Your task to perform on an android device: Show me popular games on the Play Store Image 0: 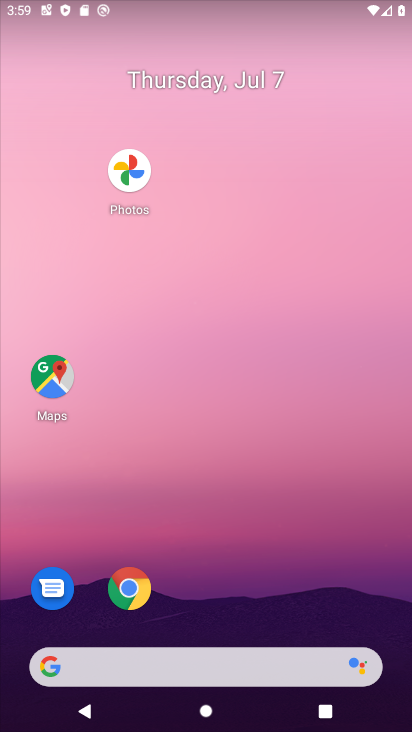
Step 0: drag from (315, 688) to (117, 12)
Your task to perform on an android device: Show me popular games on the Play Store Image 1: 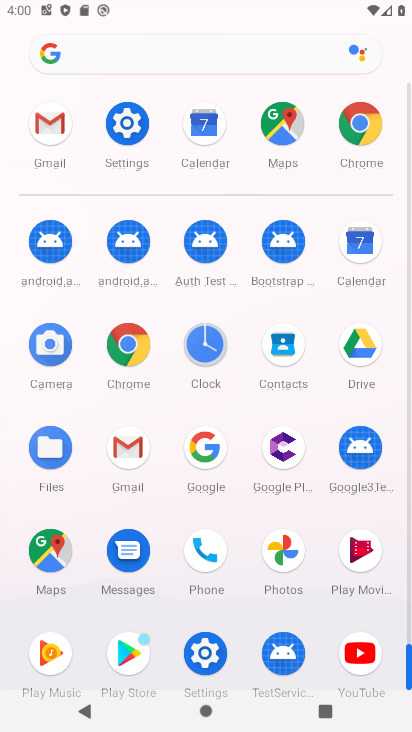
Step 1: click (130, 645)
Your task to perform on an android device: Show me popular games on the Play Store Image 2: 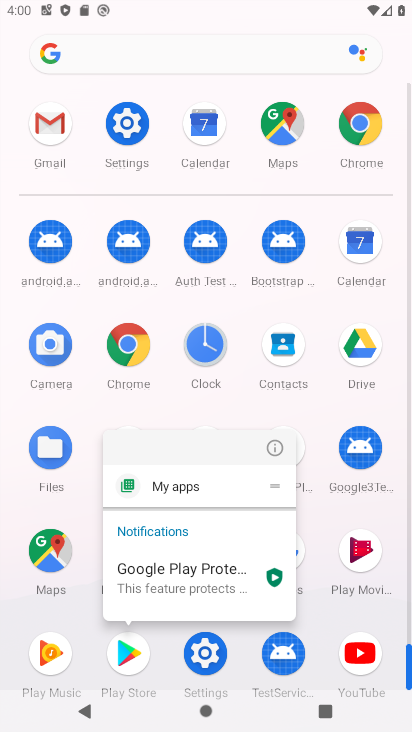
Step 2: click (127, 649)
Your task to perform on an android device: Show me popular games on the Play Store Image 3: 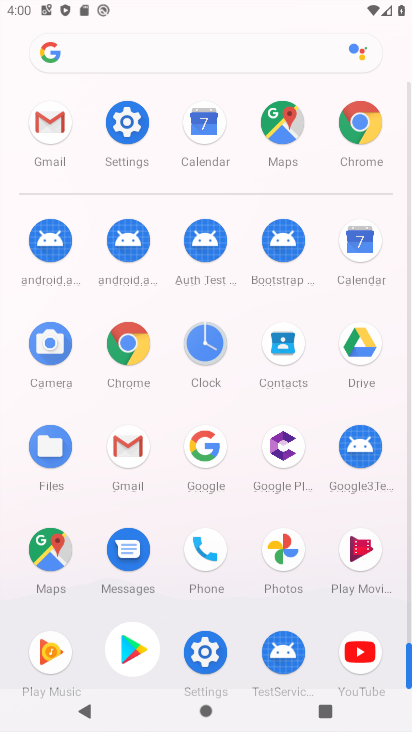
Step 3: click (129, 650)
Your task to perform on an android device: Show me popular games on the Play Store Image 4: 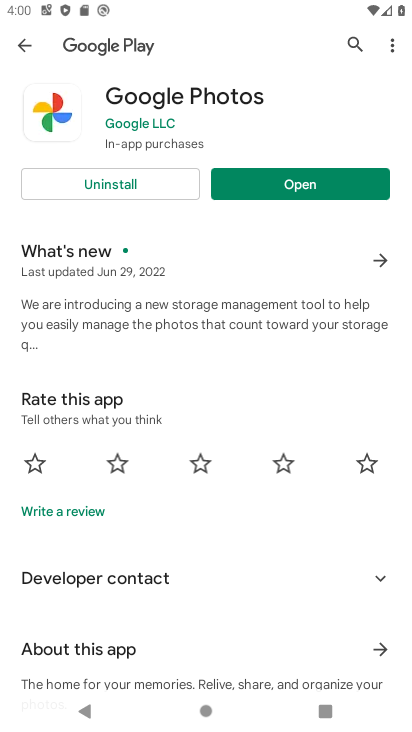
Step 4: click (20, 40)
Your task to perform on an android device: Show me popular games on the Play Store Image 5: 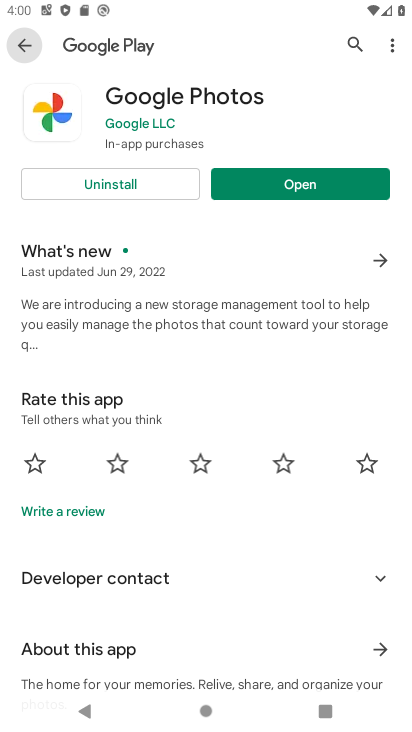
Step 5: click (30, 42)
Your task to perform on an android device: Show me popular games on the Play Store Image 6: 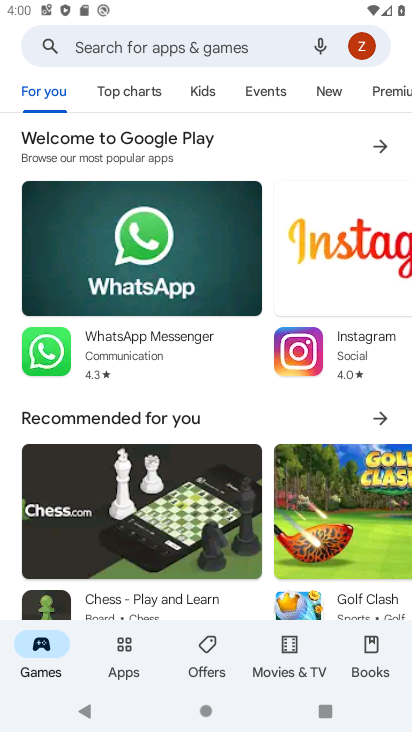
Step 6: click (135, 56)
Your task to perform on an android device: Show me popular games on the Play Store Image 7: 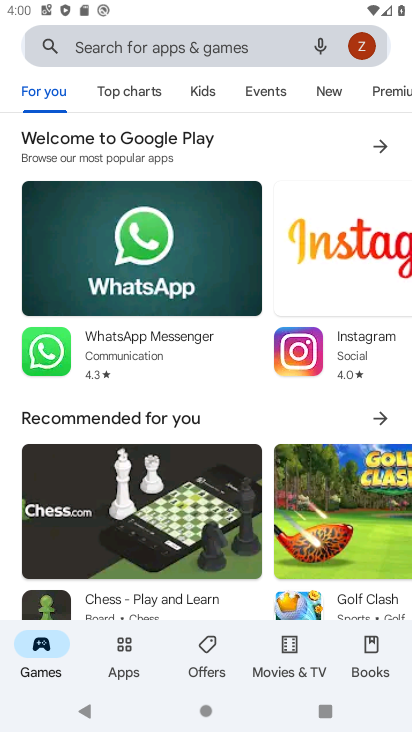
Step 7: click (135, 56)
Your task to perform on an android device: Show me popular games on the Play Store Image 8: 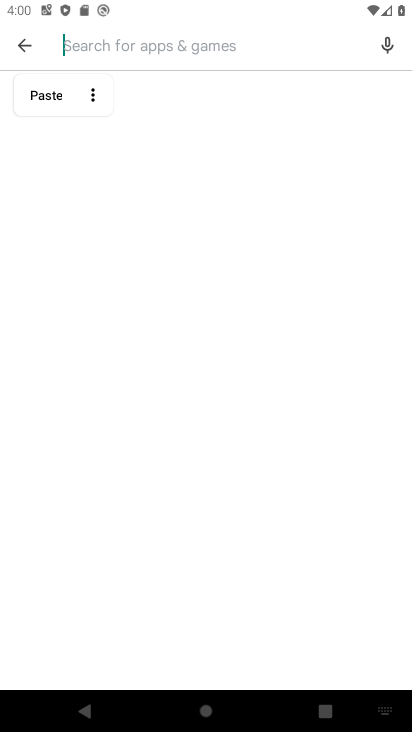
Step 8: type "popular games"
Your task to perform on an android device: Show me popular games on the Play Store Image 9: 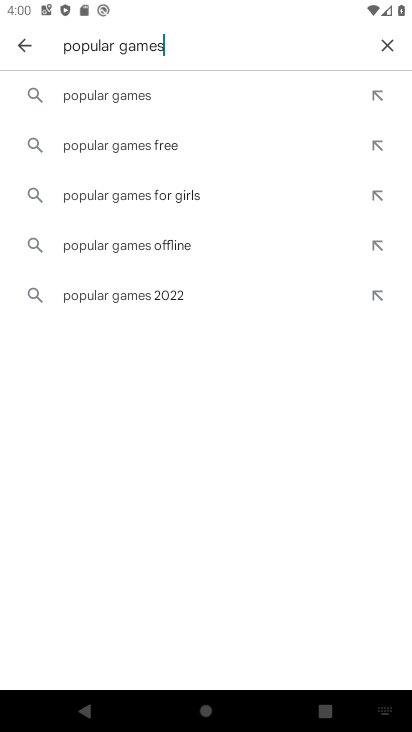
Step 9: click (126, 86)
Your task to perform on an android device: Show me popular games on the Play Store Image 10: 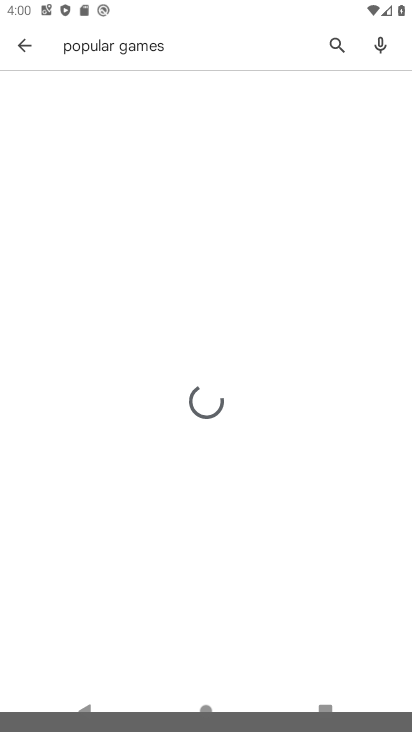
Step 10: click (119, 96)
Your task to perform on an android device: Show me popular games on the Play Store Image 11: 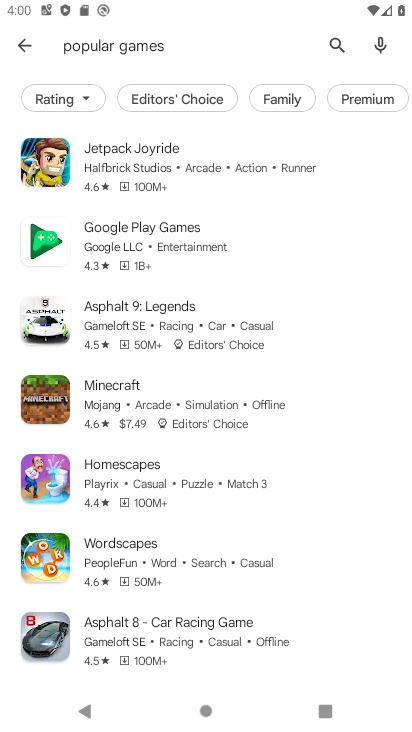
Step 11: task complete